Your task to perform on an android device: Open settings Image 0: 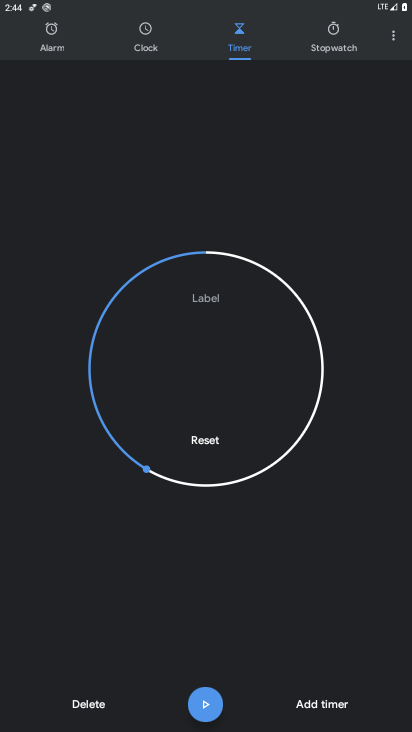
Step 0: drag from (47, 649) to (220, 241)
Your task to perform on an android device: Open settings Image 1: 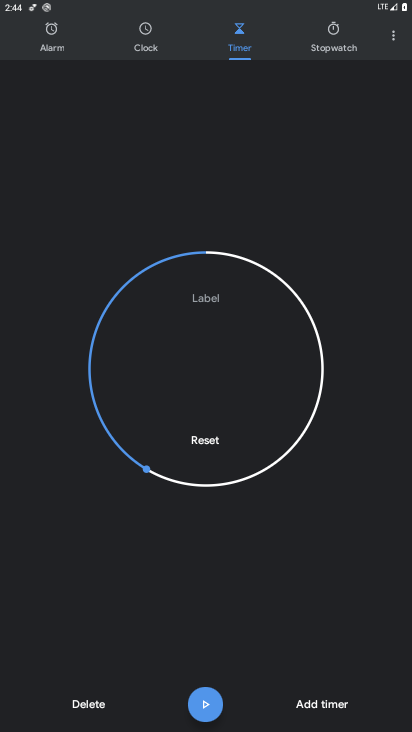
Step 1: press home button
Your task to perform on an android device: Open settings Image 2: 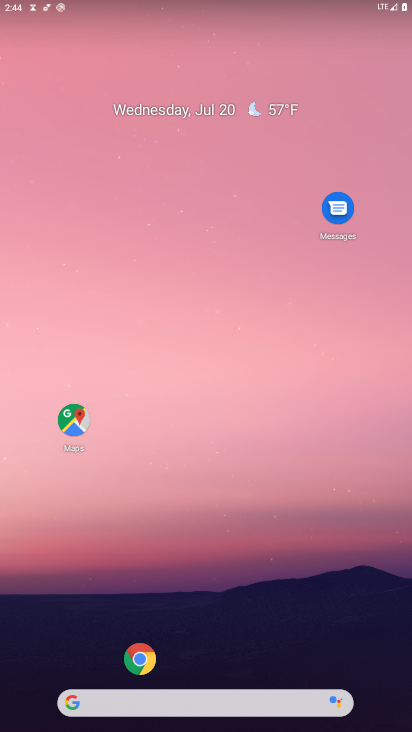
Step 2: drag from (37, 670) to (271, 93)
Your task to perform on an android device: Open settings Image 3: 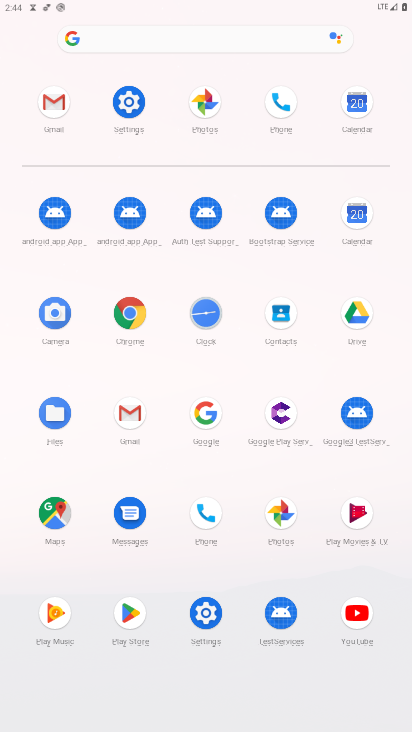
Step 3: click (189, 594)
Your task to perform on an android device: Open settings Image 4: 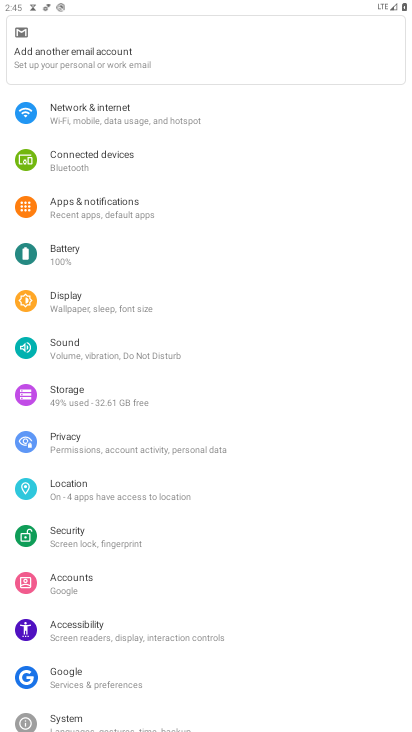
Step 4: task complete